Your task to perform on an android device: stop showing notifications on the lock screen Image 0: 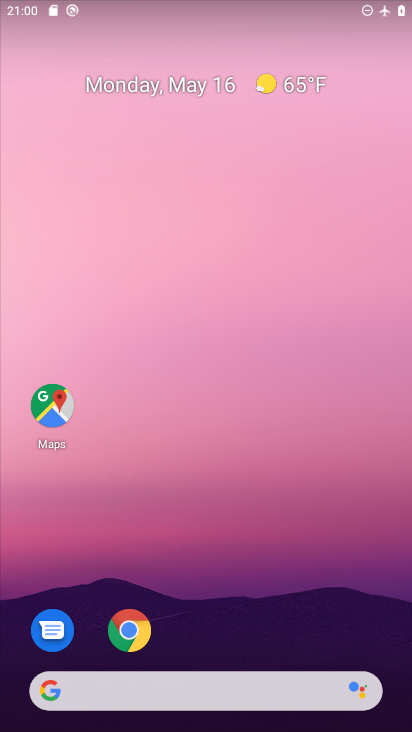
Step 0: drag from (195, 651) to (235, 141)
Your task to perform on an android device: stop showing notifications on the lock screen Image 1: 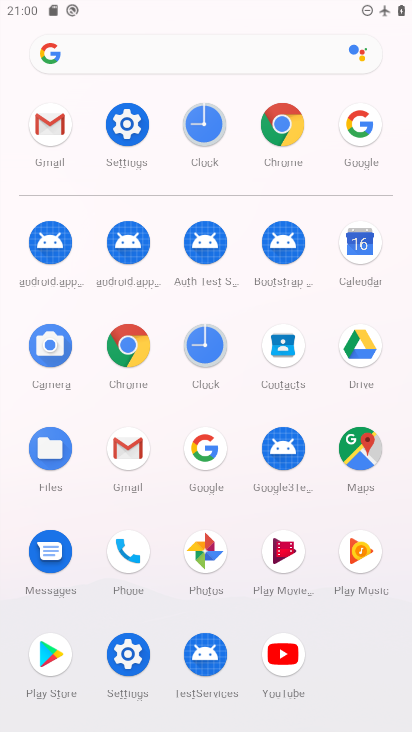
Step 1: click (110, 124)
Your task to perform on an android device: stop showing notifications on the lock screen Image 2: 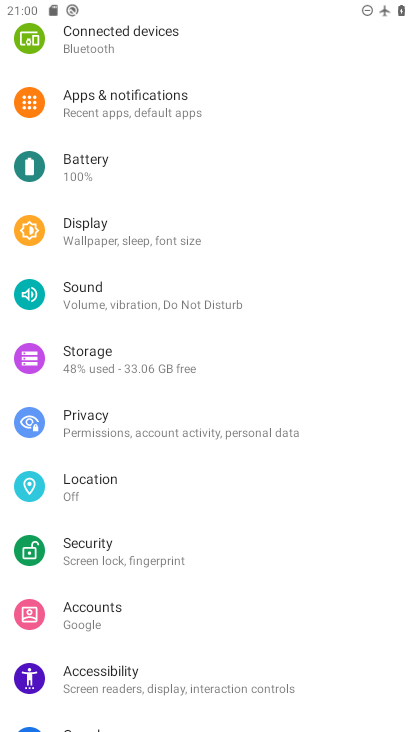
Step 2: click (166, 111)
Your task to perform on an android device: stop showing notifications on the lock screen Image 3: 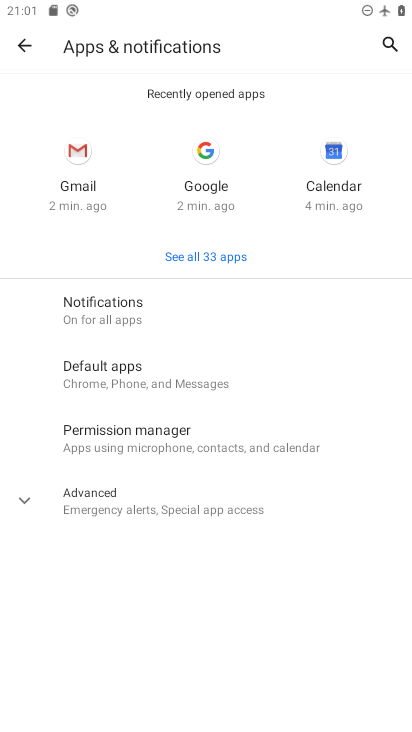
Step 3: click (167, 316)
Your task to perform on an android device: stop showing notifications on the lock screen Image 4: 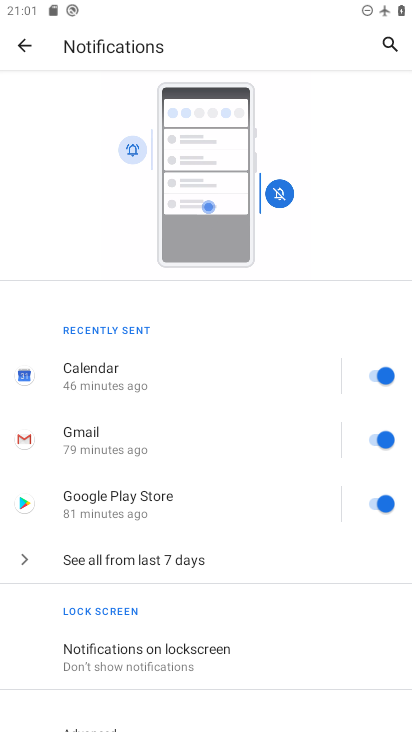
Step 4: click (244, 650)
Your task to perform on an android device: stop showing notifications on the lock screen Image 5: 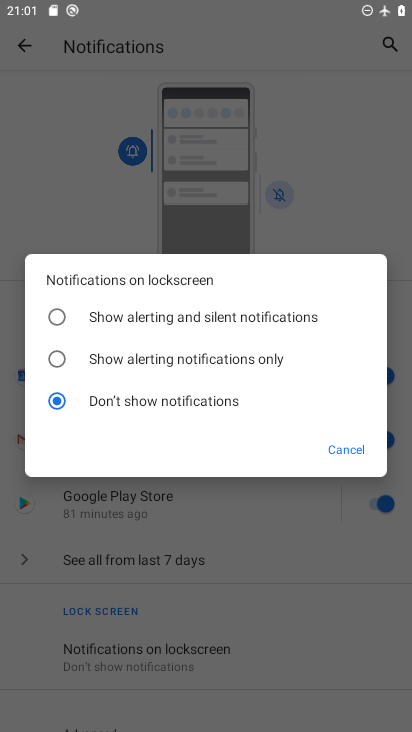
Step 5: task complete